Your task to perform on an android device: Open settings Image 0: 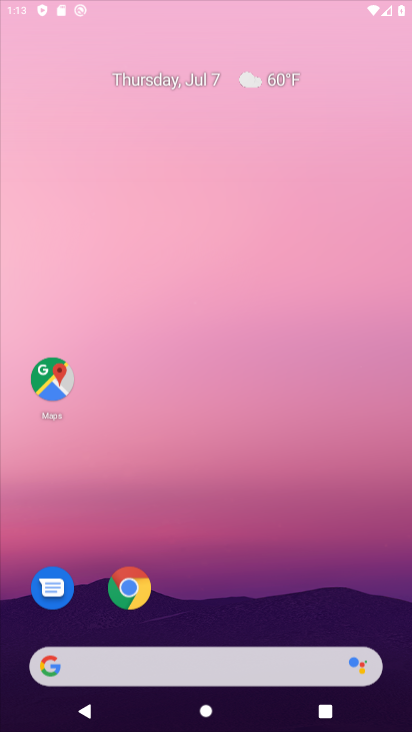
Step 0: click (261, 19)
Your task to perform on an android device: Open settings Image 1: 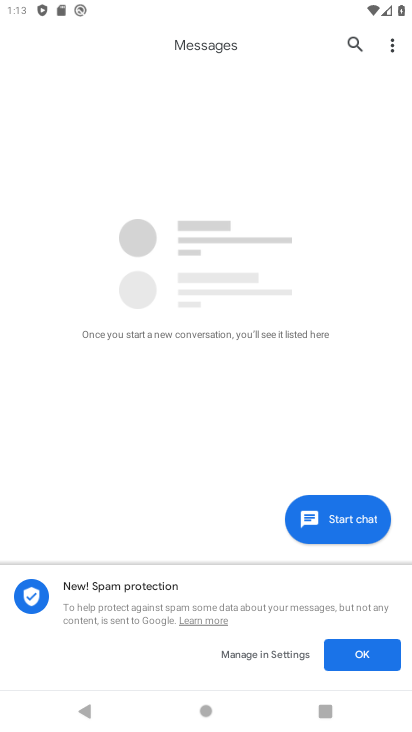
Step 1: press home button
Your task to perform on an android device: Open settings Image 2: 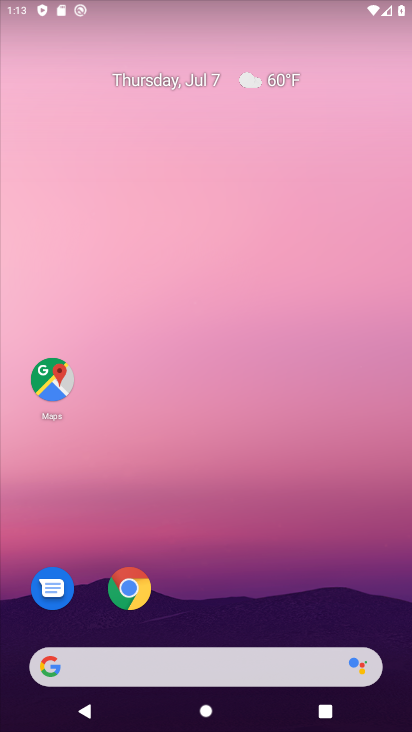
Step 2: drag from (204, 633) to (277, 70)
Your task to perform on an android device: Open settings Image 3: 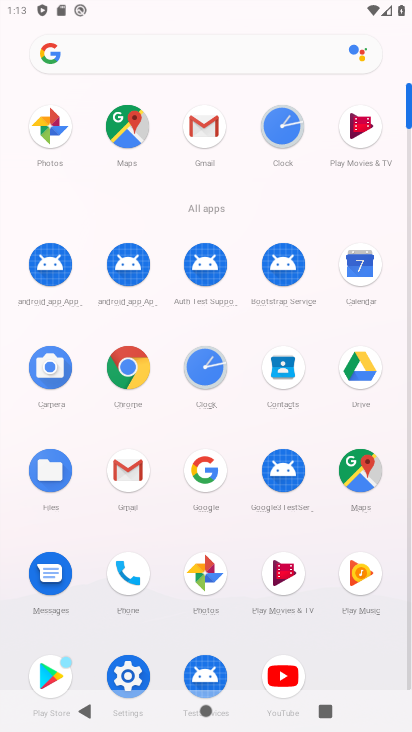
Step 3: click (125, 674)
Your task to perform on an android device: Open settings Image 4: 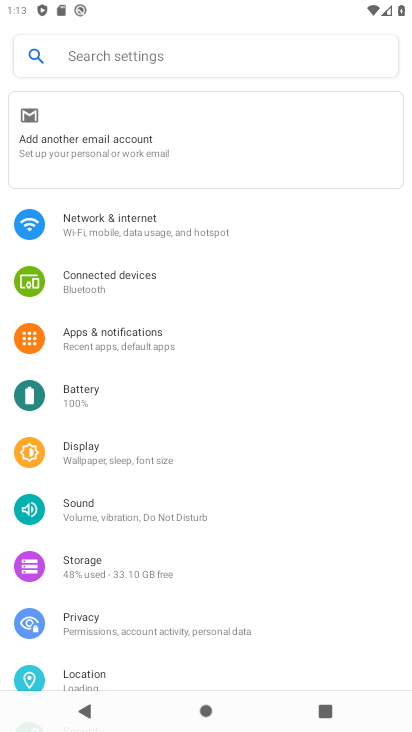
Step 4: task complete